Your task to perform on an android device: Go to settings Image 0: 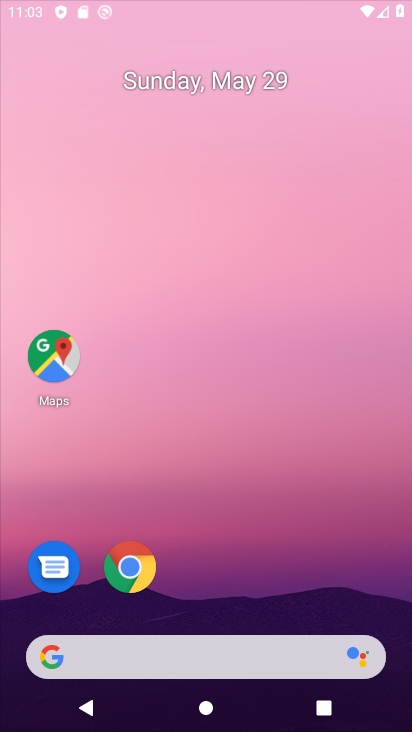
Step 0: drag from (135, 572) to (198, 572)
Your task to perform on an android device: Go to settings Image 1: 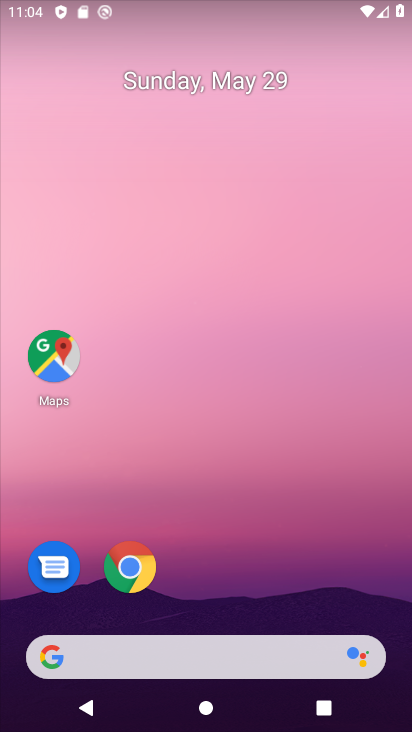
Step 1: drag from (192, 609) to (192, 161)
Your task to perform on an android device: Go to settings Image 2: 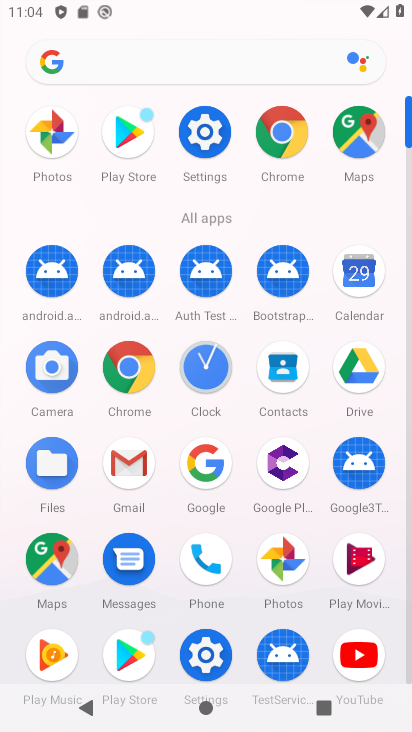
Step 2: click (216, 142)
Your task to perform on an android device: Go to settings Image 3: 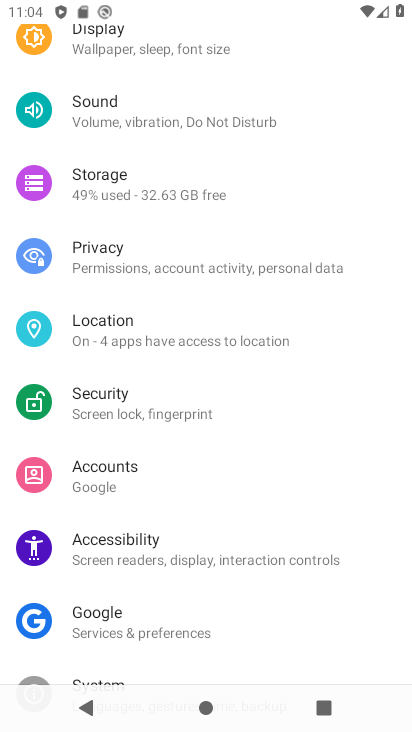
Step 3: task complete